Your task to perform on an android device: toggle pop-ups in chrome Image 0: 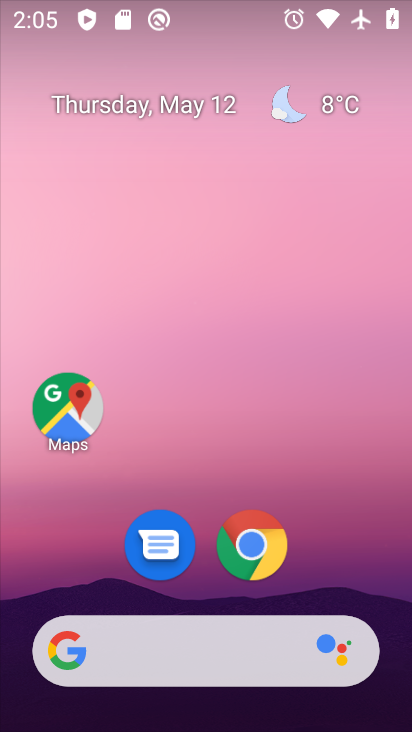
Step 0: click (254, 540)
Your task to perform on an android device: toggle pop-ups in chrome Image 1: 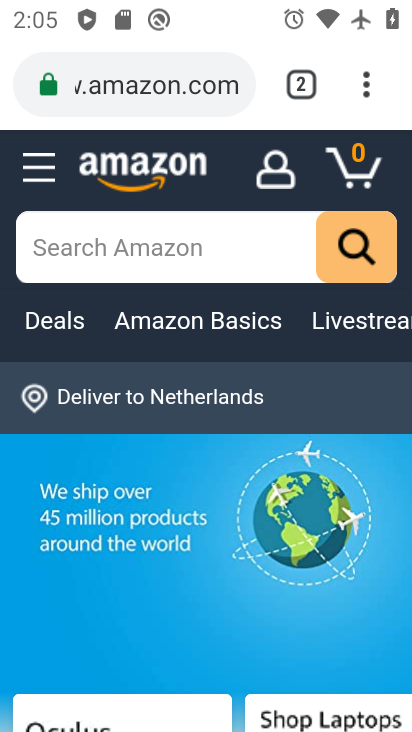
Step 1: click (370, 88)
Your task to perform on an android device: toggle pop-ups in chrome Image 2: 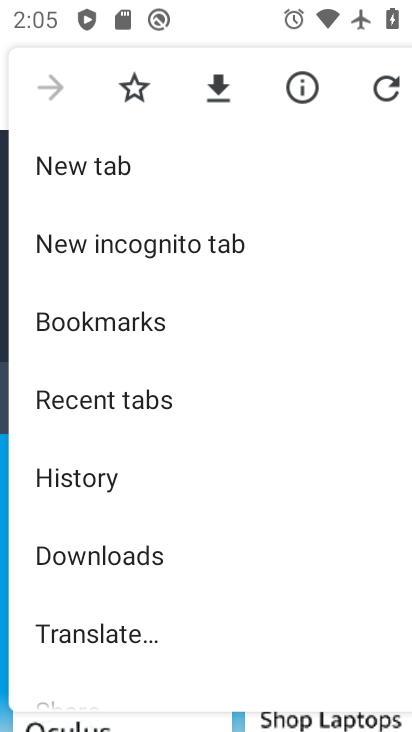
Step 2: drag from (192, 587) to (223, 256)
Your task to perform on an android device: toggle pop-ups in chrome Image 3: 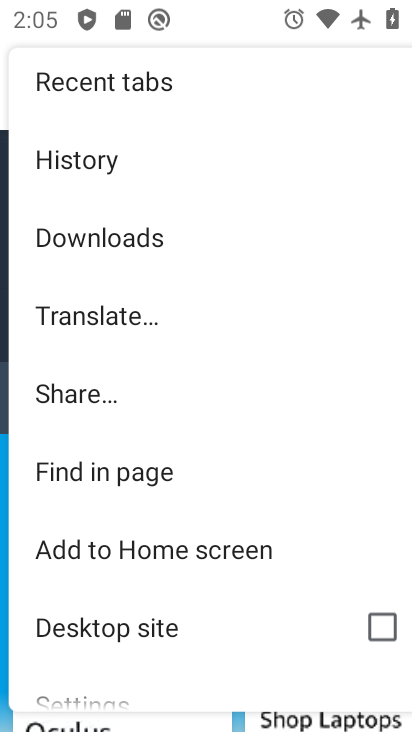
Step 3: drag from (119, 605) to (229, 257)
Your task to perform on an android device: toggle pop-ups in chrome Image 4: 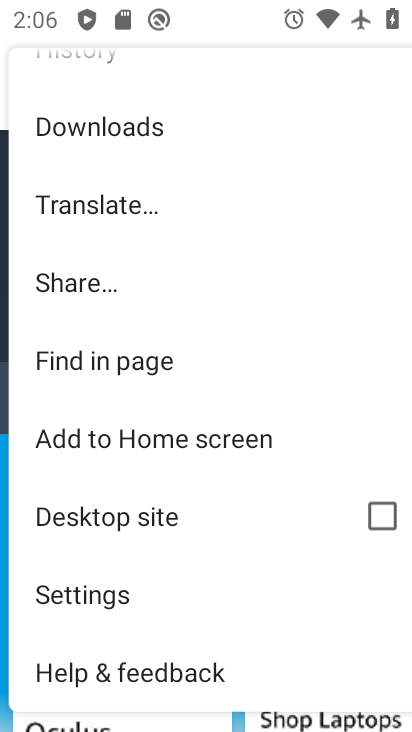
Step 4: click (91, 583)
Your task to perform on an android device: toggle pop-ups in chrome Image 5: 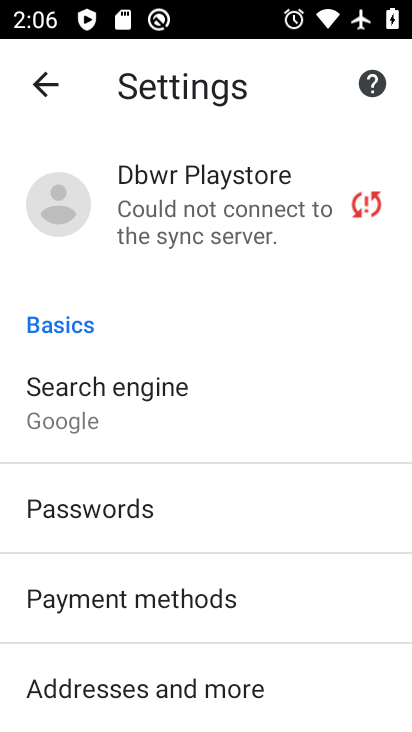
Step 5: drag from (292, 625) to (229, 144)
Your task to perform on an android device: toggle pop-ups in chrome Image 6: 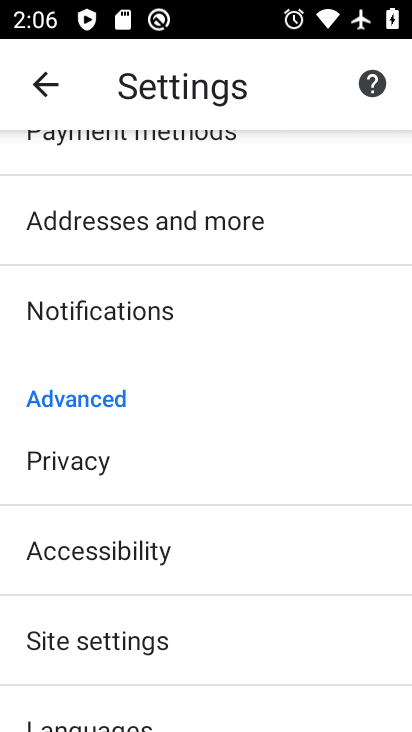
Step 6: drag from (222, 655) to (223, 292)
Your task to perform on an android device: toggle pop-ups in chrome Image 7: 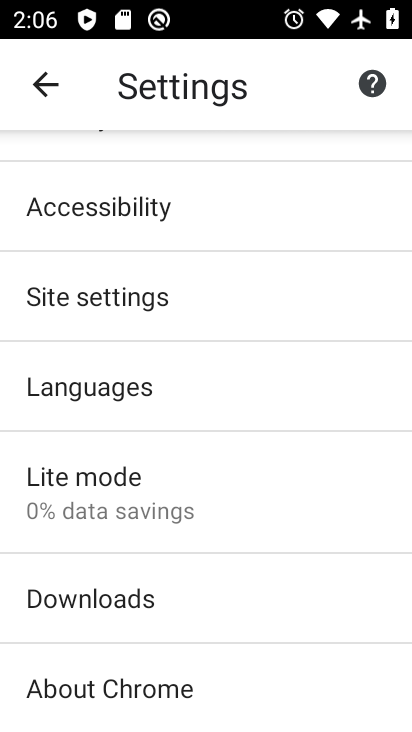
Step 7: click (85, 307)
Your task to perform on an android device: toggle pop-ups in chrome Image 8: 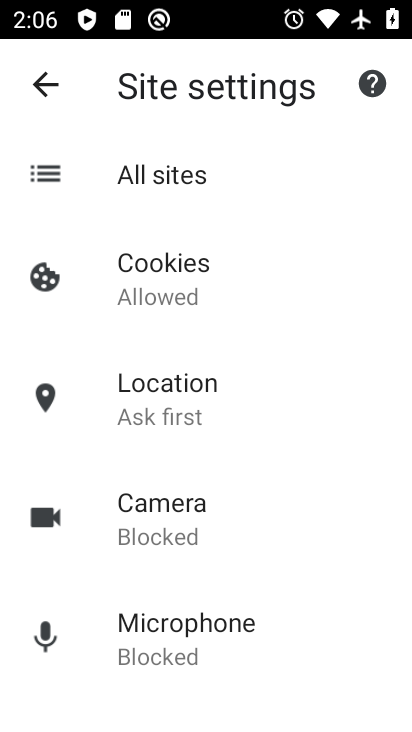
Step 8: drag from (265, 613) to (250, 321)
Your task to perform on an android device: toggle pop-ups in chrome Image 9: 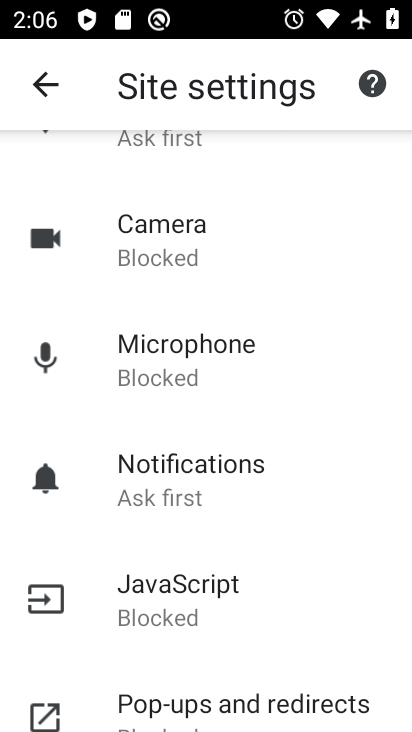
Step 9: drag from (234, 670) to (277, 294)
Your task to perform on an android device: toggle pop-ups in chrome Image 10: 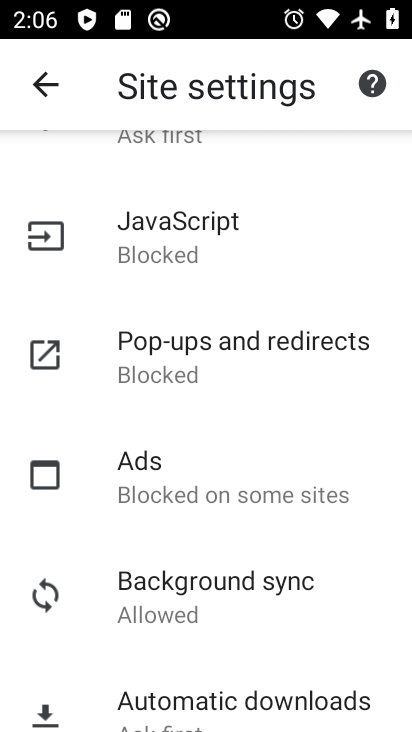
Step 10: click (146, 372)
Your task to perform on an android device: toggle pop-ups in chrome Image 11: 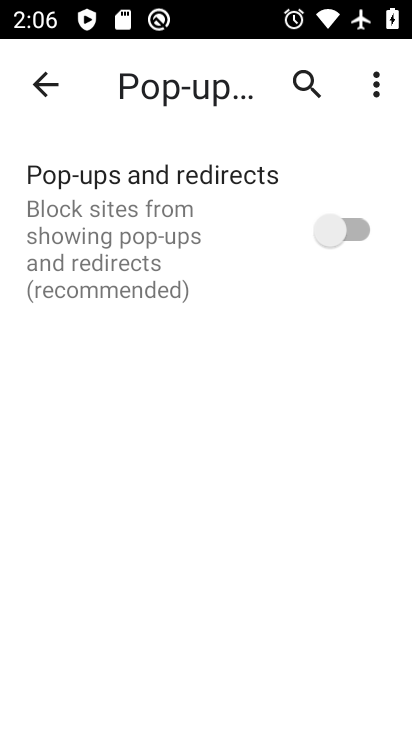
Step 11: click (356, 224)
Your task to perform on an android device: toggle pop-ups in chrome Image 12: 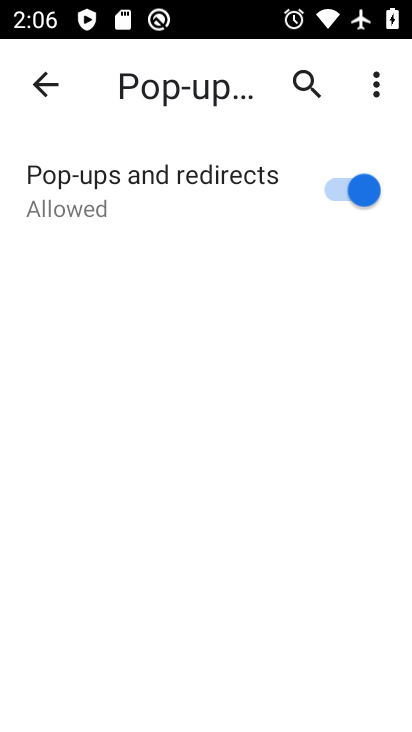
Step 12: task complete